Your task to perform on an android device: snooze an email in the gmail app Image 0: 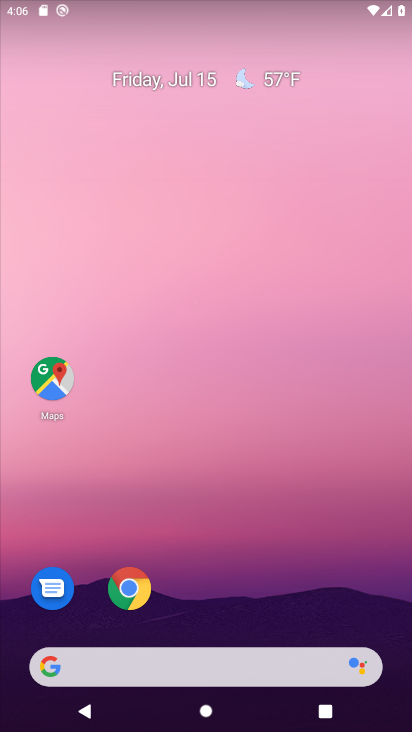
Step 0: drag from (188, 666) to (186, 115)
Your task to perform on an android device: snooze an email in the gmail app Image 1: 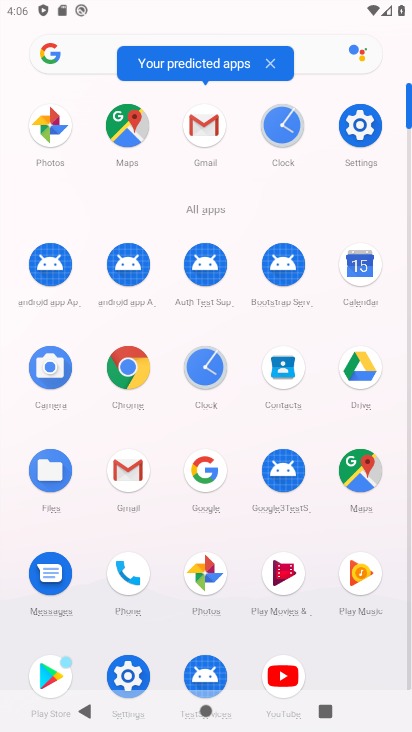
Step 1: click (198, 127)
Your task to perform on an android device: snooze an email in the gmail app Image 2: 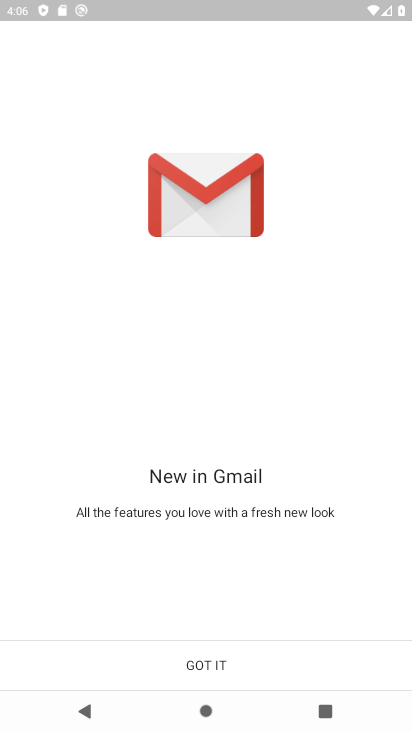
Step 2: click (201, 666)
Your task to perform on an android device: snooze an email in the gmail app Image 3: 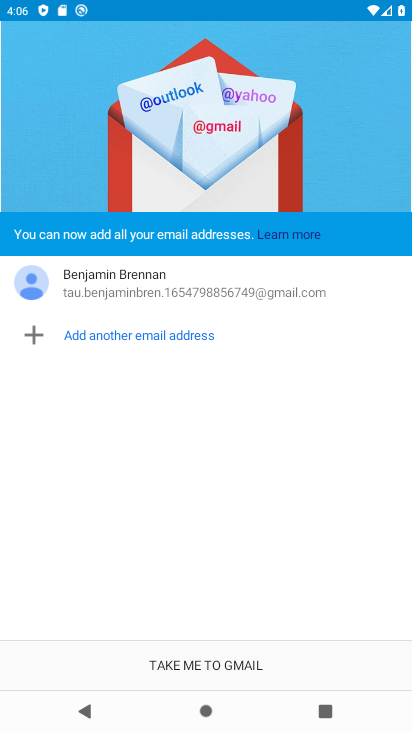
Step 3: click (201, 666)
Your task to perform on an android device: snooze an email in the gmail app Image 4: 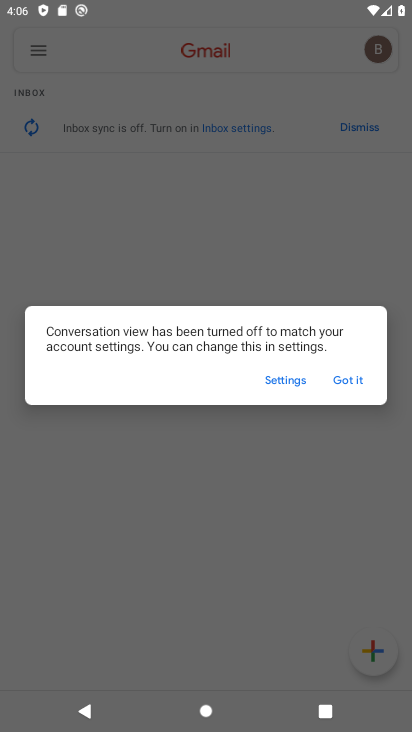
Step 4: click (347, 379)
Your task to perform on an android device: snooze an email in the gmail app Image 5: 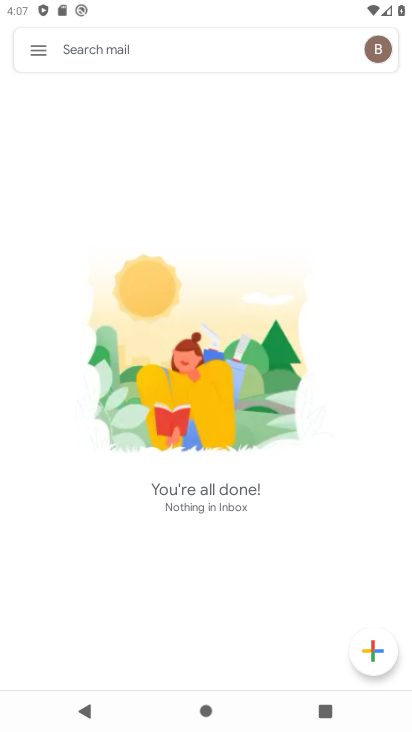
Step 5: click (47, 46)
Your task to perform on an android device: snooze an email in the gmail app Image 6: 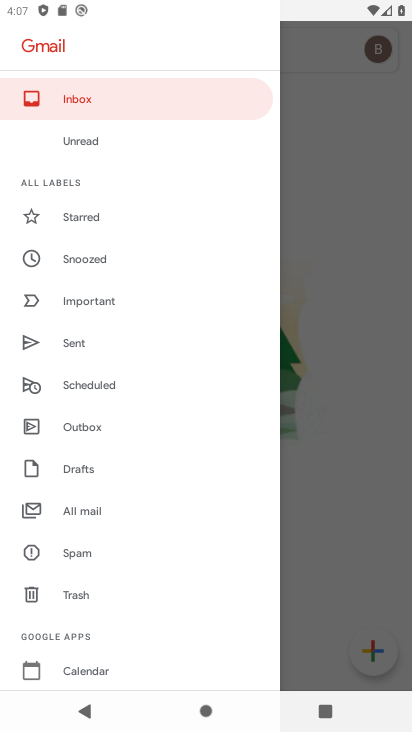
Step 6: click (93, 515)
Your task to perform on an android device: snooze an email in the gmail app Image 7: 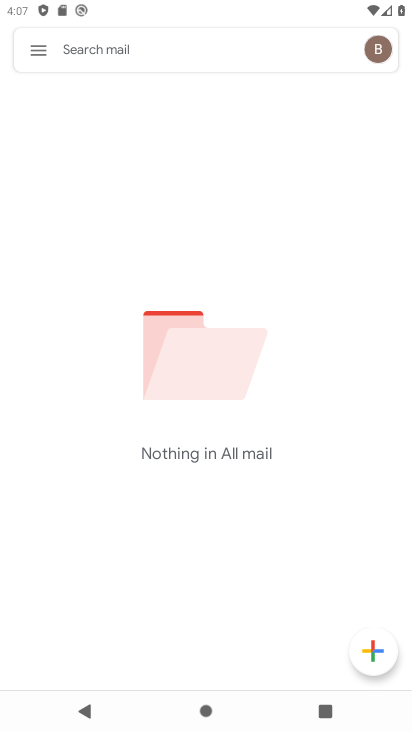
Step 7: click (29, 50)
Your task to perform on an android device: snooze an email in the gmail app Image 8: 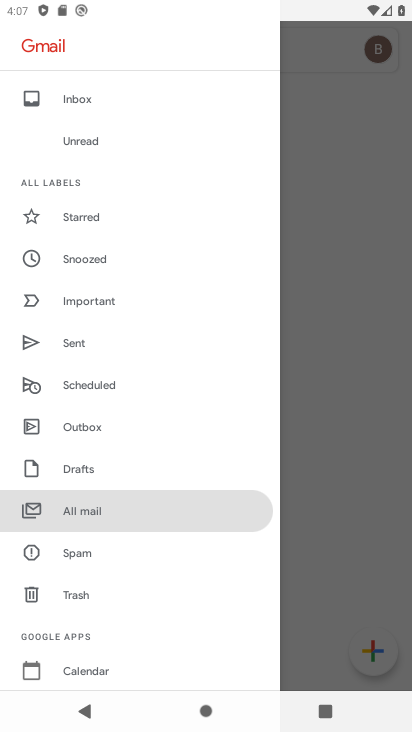
Step 8: click (83, 140)
Your task to perform on an android device: snooze an email in the gmail app Image 9: 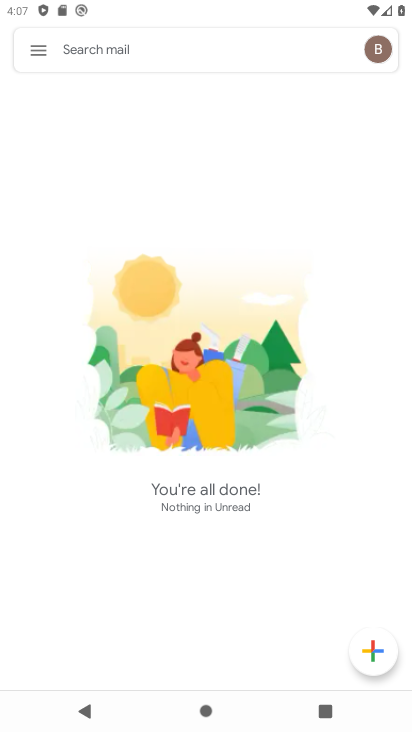
Step 9: click (41, 54)
Your task to perform on an android device: snooze an email in the gmail app Image 10: 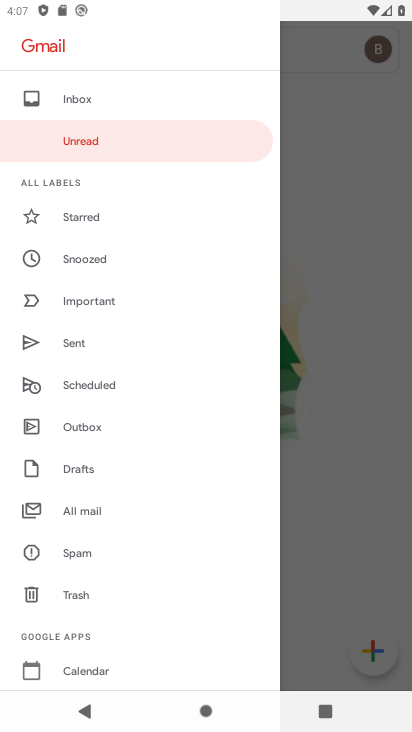
Step 10: click (60, 222)
Your task to perform on an android device: snooze an email in the gmail app Image 11: 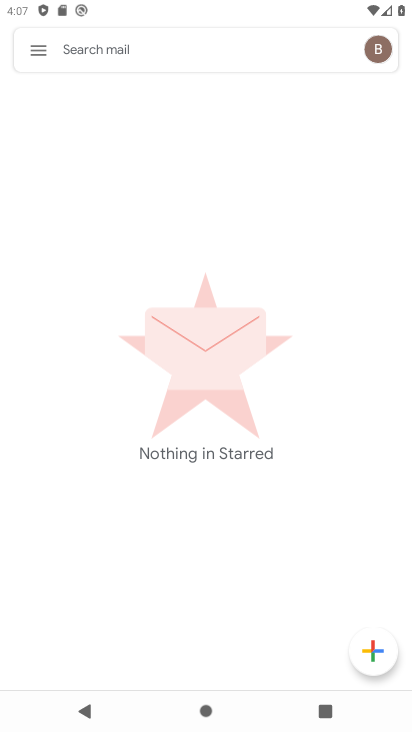
Step 11: click (35, 51)
Your task to perform on an android device: snooze an email in the gmail app Image 12: 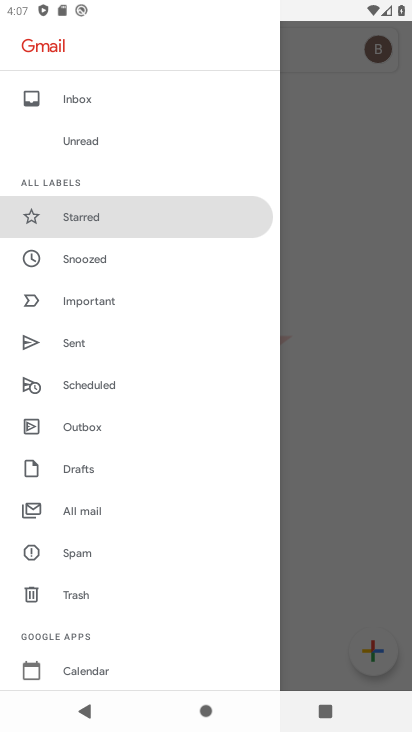
Step 12: click (78, 259)
Your task to perform on an android device: snooze an email in the gmail app Image 13: 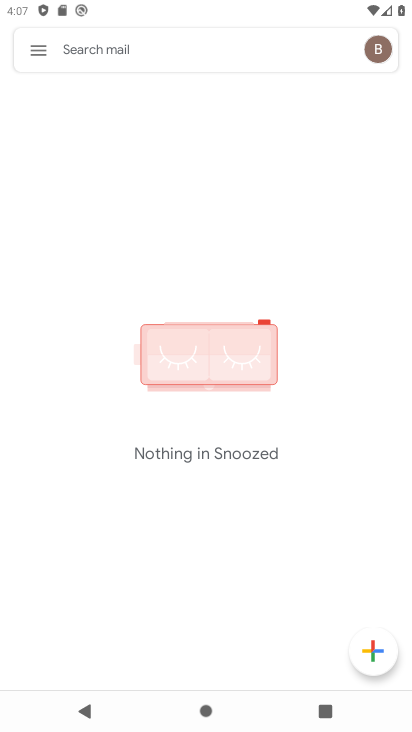
Step 13: click (29, 51)
Your task to perform on an android device: snooze an email in the gmail app Image 14: 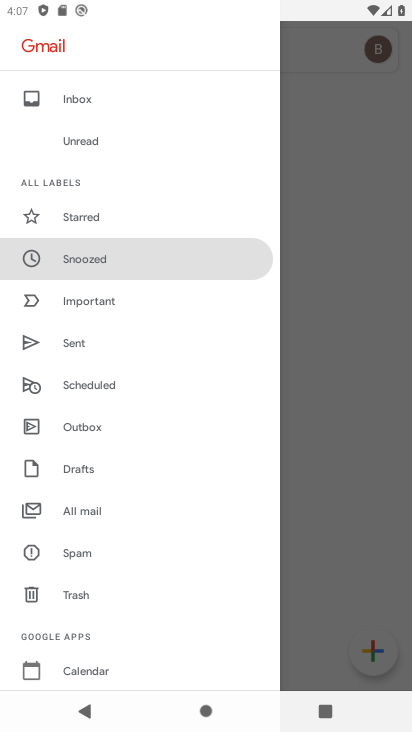
Step 14: click (69, 313)
Your task to perform on an android device: snooze an email in the gmail app Image 15: 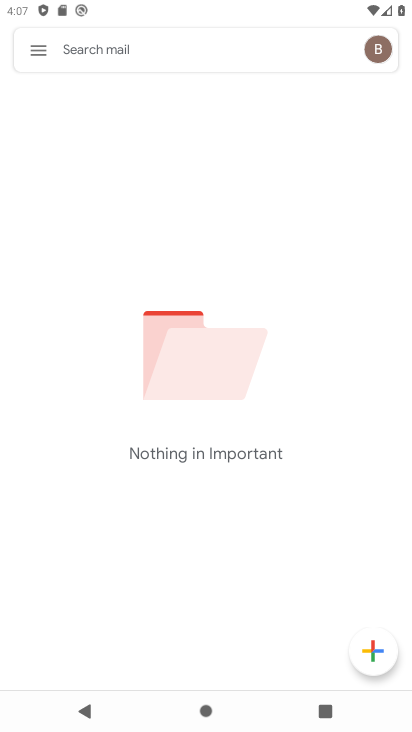
Step 15: click (29, 46)
Your task to perform on an android device: snooze an email in the gmail app Image 16: 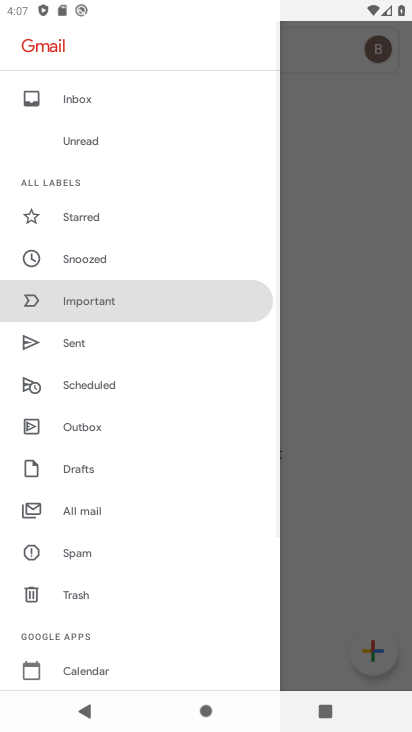
Step 16: click (77, 340)
Your task to perform on an android device: snooze an email in the gmail app Image 17: 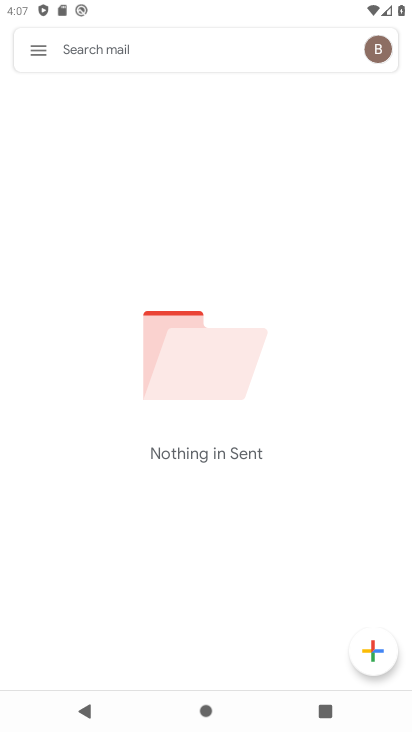
Step 17: click (32, 50)
Your task to perform on an android device: snooze an email in the gmail app Image 18: 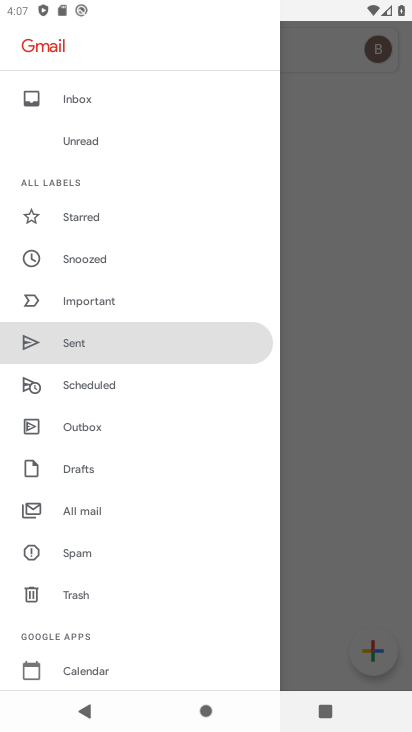
Step 18: click (100, 384)
Your task to perform on an android device: snooze an email in the gmail app Image 19: 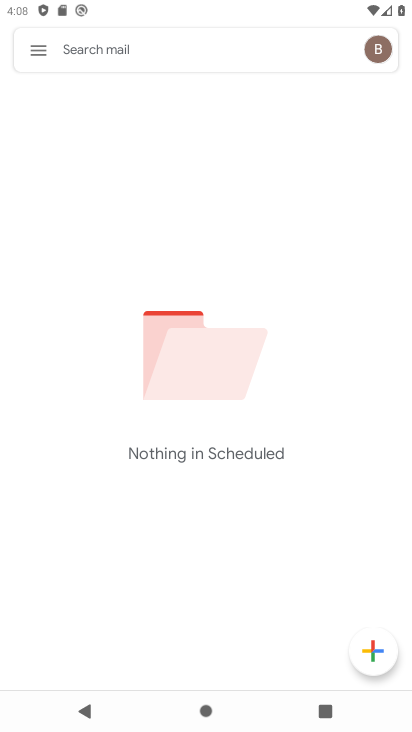
Step 19: click (25, 56)
Your task to perform on an android device: snooze an email in the gmail app Image 20: 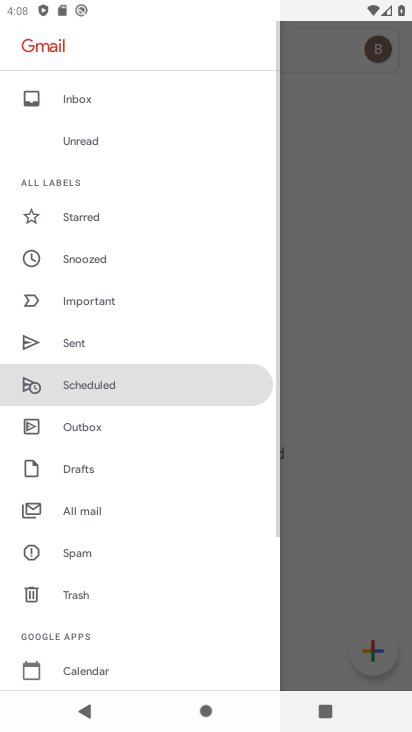
Step 20: click (73, 437)
Your task to perform on an android device: snooze an email in the gmail app Image 21: 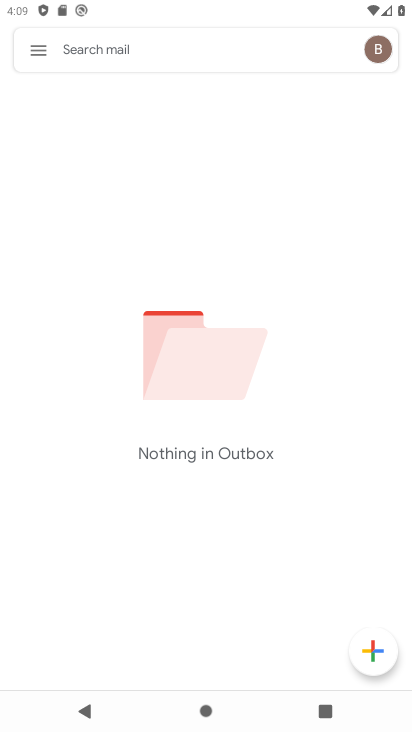
Step 21: task complete